Your task to perform on an android device: turn on the 24-hour format for clock Image 0: 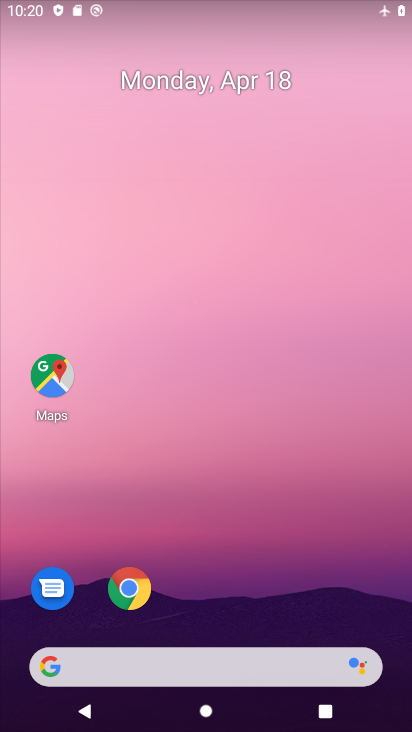
Step 0: drag from (285, 599) to (289, 51)
Your task to perform on an android device: turn on the 24-hour format for clock Image 1: 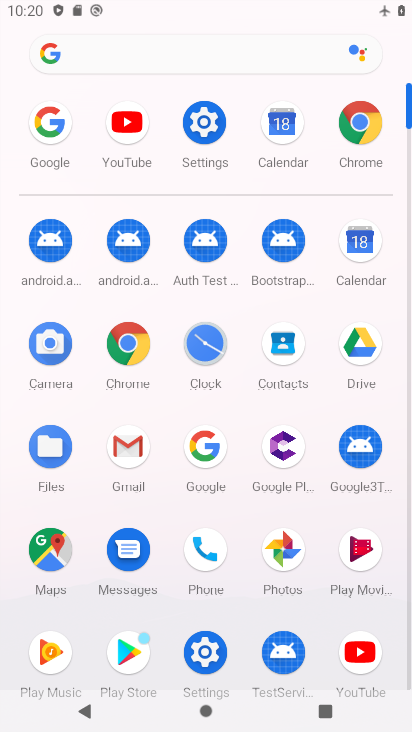
Step 1: click (191, 347)
Your task to perform on an android device: turn on the 24-hour format for clock Image 2: 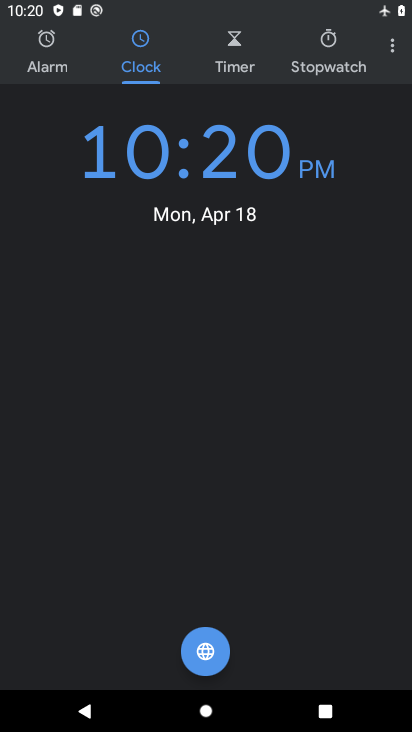
Step 2: click (386, 43)
Your task to perform on an android device: turn on the 24-hour format for clock Image 3: 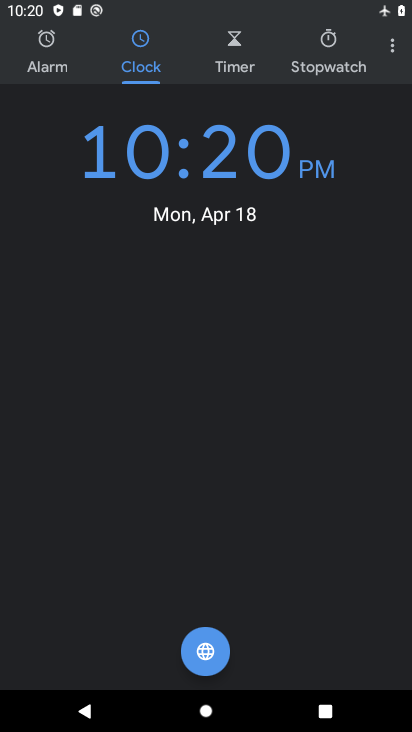
Step 3: click (386, 43)
Your task to perform on an android device: turn on the 24-hour format for clock Image 4: 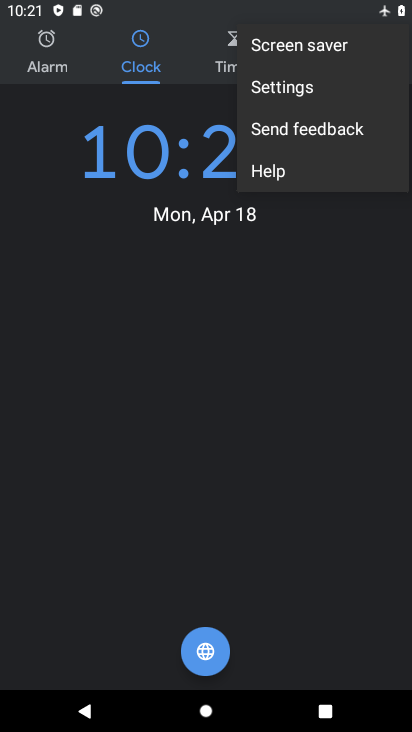
Step 4: click (274, 94)
Your task to perform on an android device: turn on the 24-hour format for clock Image 5: 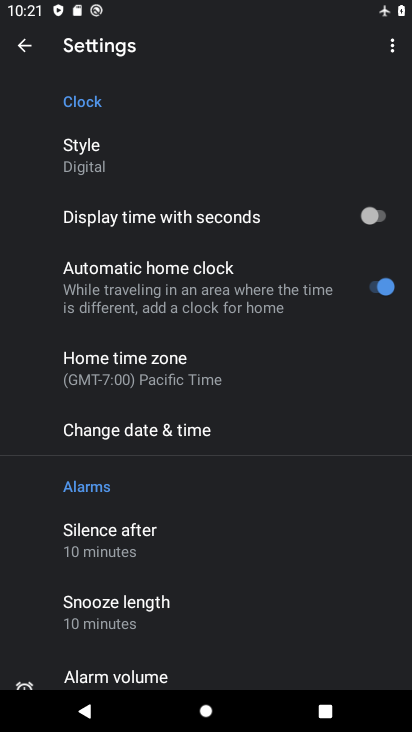
Step 5: click (198, 424)
Your task to perform on an android device: turn on the 24-hour format for clock Image 6: 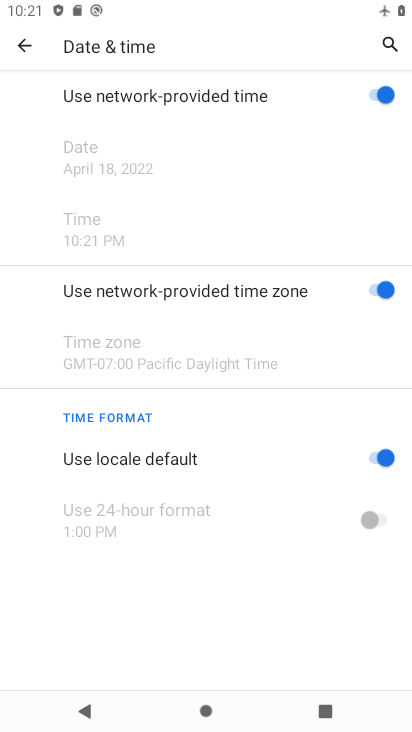
Step 6: click (371, 454)
Your task to perform on an android device: turn on the 24-hour format for clock Image 7: 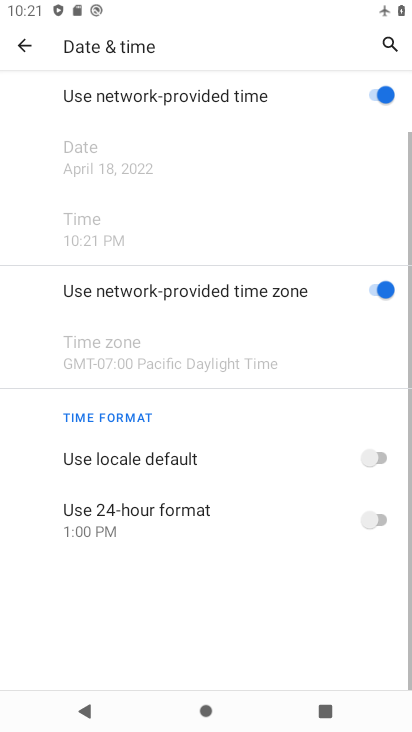
Step 7: click (371, 510)
Your task to perform on an android device: turn on the 24-hour format for clock Image 8: 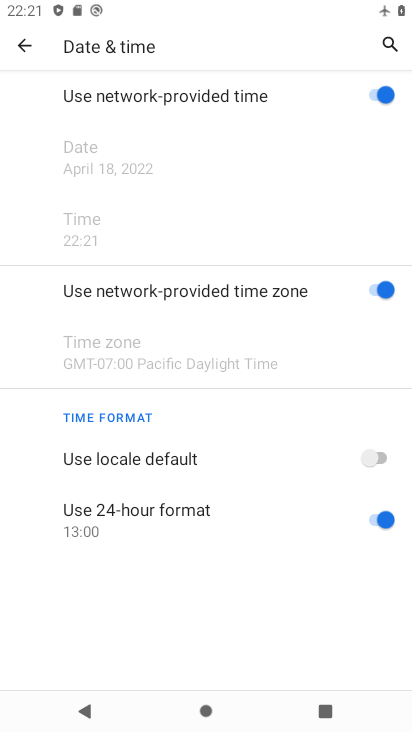
Step 8: task complete